Your task to perform on an android device: Go to battery settings Image 0: 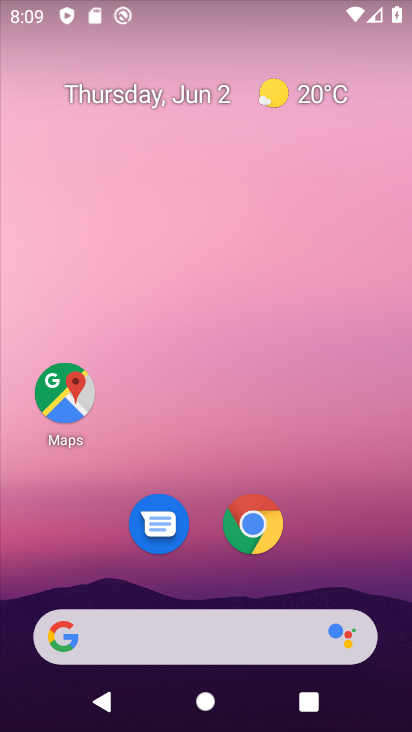
Step 0: drag from (313, 501) to (274, 26)
Your task to perform on an android device: Go to battery settings Image 1: 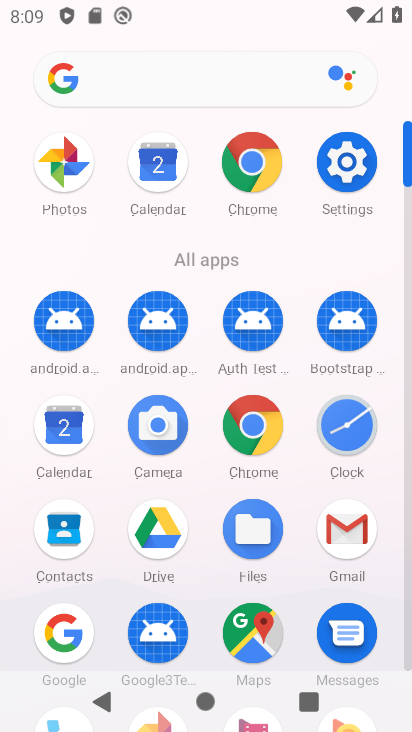
Step 1: click (348, 154)
Your task to perform on an android device: Go to battery settings Image 2: 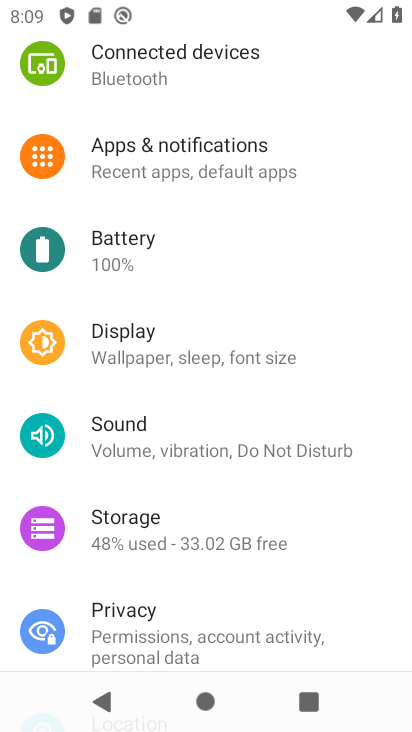
Step 2: click (221, 250)
Your task to perform on an android device: Go to battery settings Image 3: 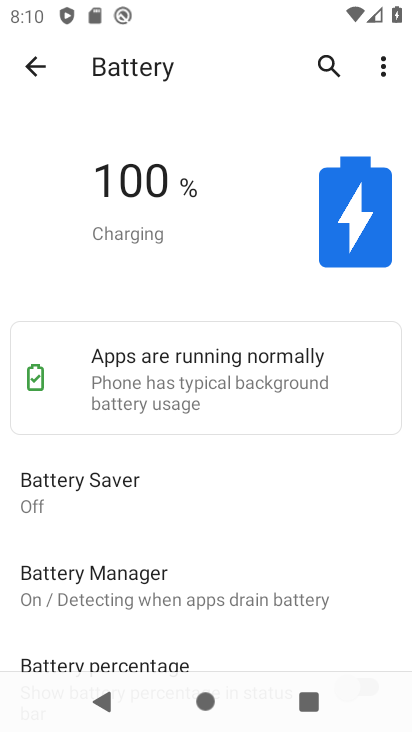
Step 3: task complete